Your task to perform on an android device: check storage Image 0: 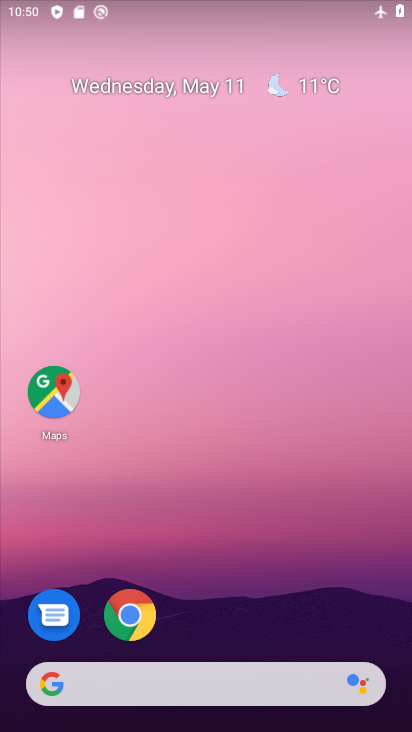
Step 0: drag from (273, 584) to (259, 34)
Your task to perform on an android device: check storage Image 1: 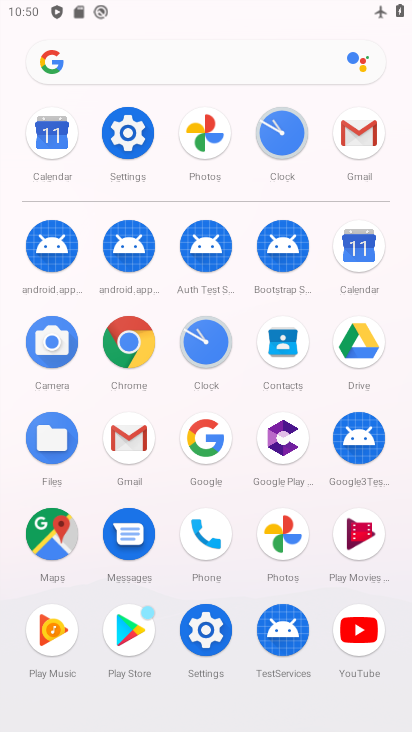
Step 1: click (125, 148)
Your task to perform on an android device: check storage Image 2: 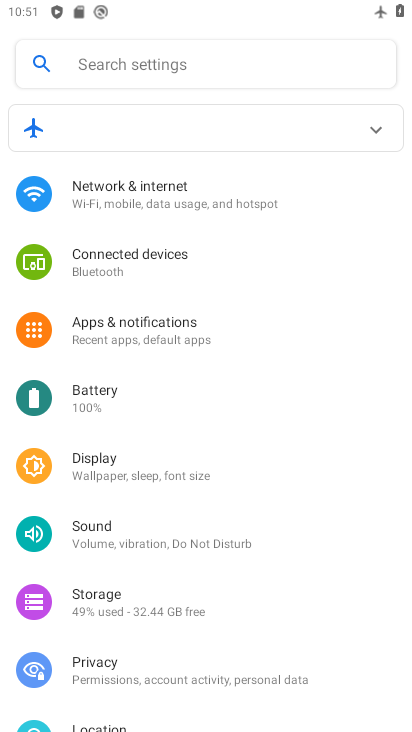
Step 2: click (115, 606)
Your task to perform on an android device: check storage Image 3: 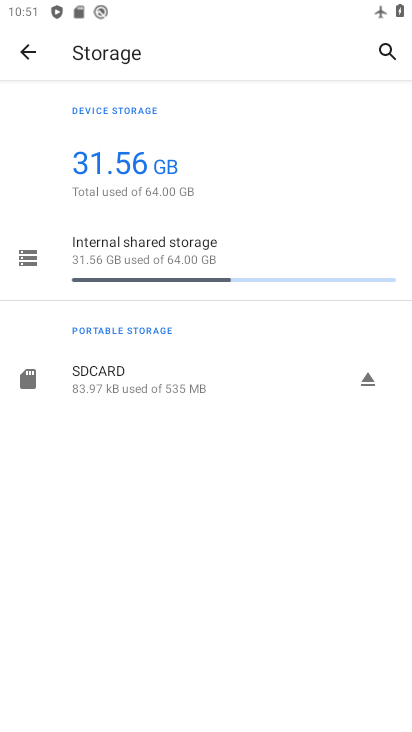
Step 3: task complete